Your task to perform on an android device: visit the assistant section in the google photos Image 0: 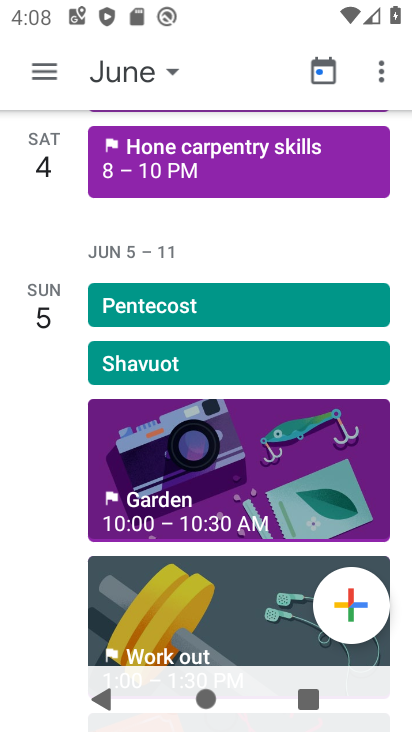
Step 0: press home button
Your task to perform on an android device: visit the assistant section in the google photos Image 1: 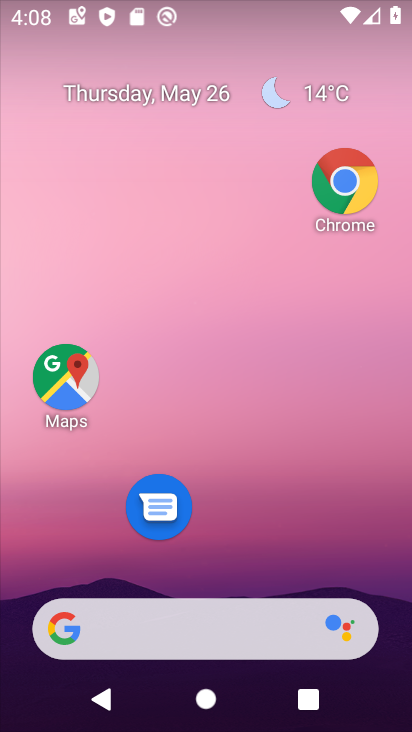
Step 1: drag from (292, 551) to (308, 59)
Your task to perform on an android device: visit the assistant section in the google photos Image 2: 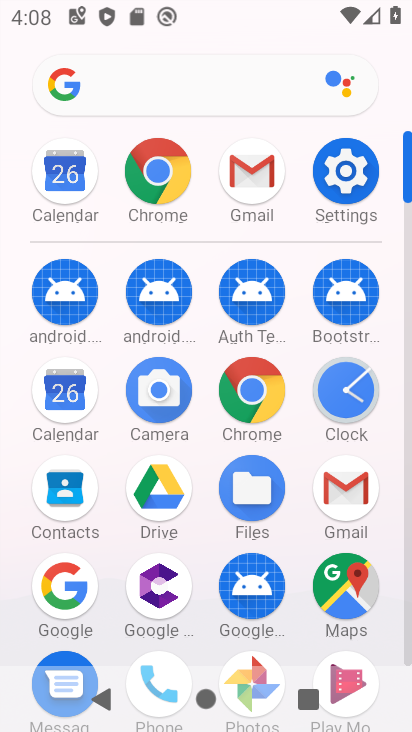
Step 2: drag from (291, 292) to (317, 53)
Your task to perform on an android device: visit the assistant section in the google photos Image 3: 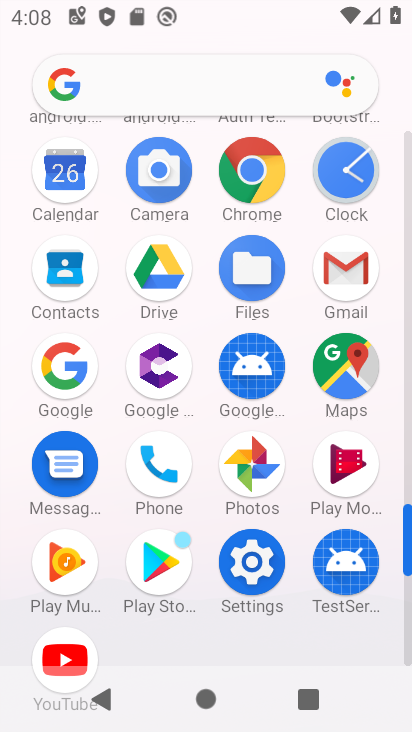
Step 3: click (247, 475)
Your task to perform on an android device: visit the assistant section in the google photos Image 4: 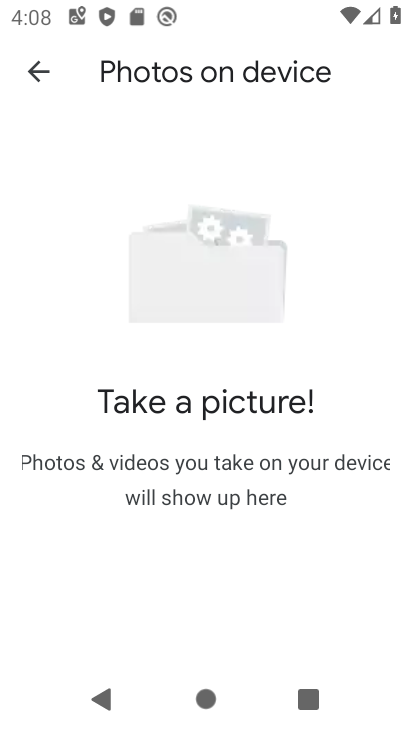
Step 4: press home button
Your task to perform on an android device: visit the assistant section in the google photos Image 5: 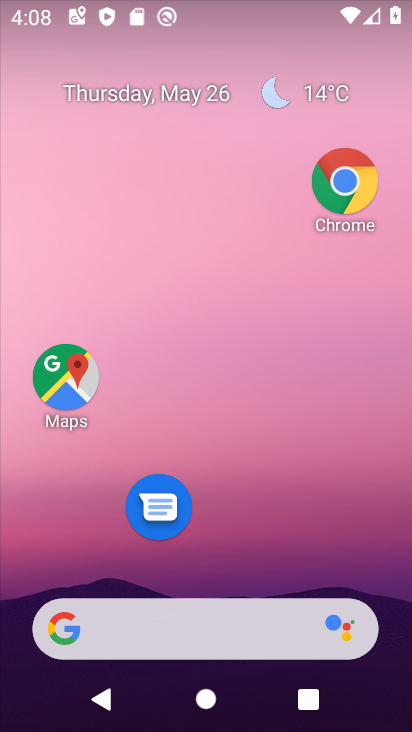
Step 5: drag from (264, 546) to (333, 63)
Your task to perform on an android device: visit the assistant section in the google photos Image 6: 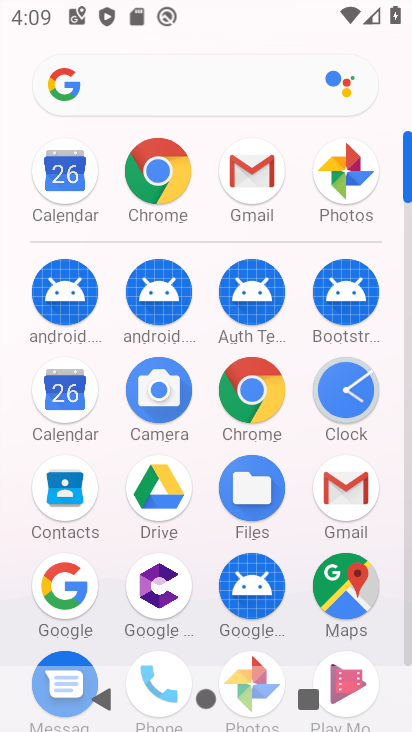
Step 6: drag from (298, 326) to (310, 76)
Your task to perform on an android device: visit the assistant section in the google photos Image 7: 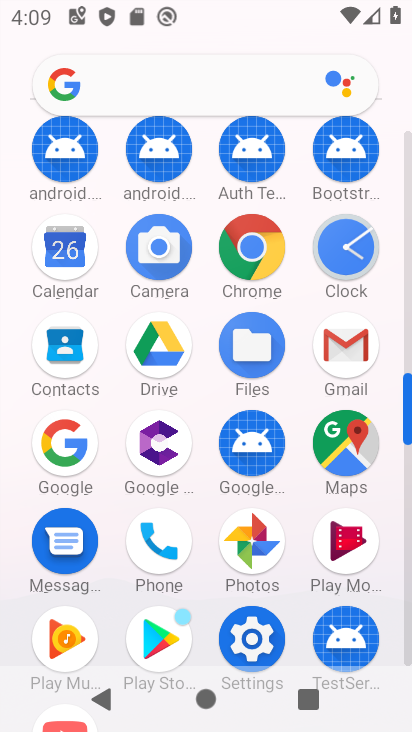
Step 7: click (246, 550)
Your task to perform on an android device: visit the assistant section in the google photos Image 8: 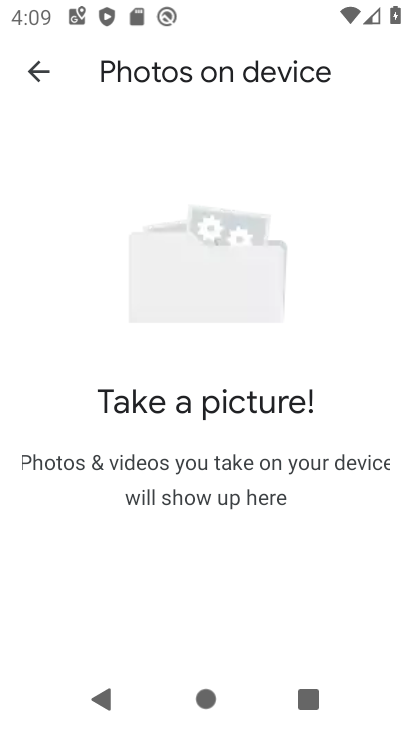
Step 8: click (31, 70)
Your task to perform on an android device: visit the assistant section in the google photos Image 9: 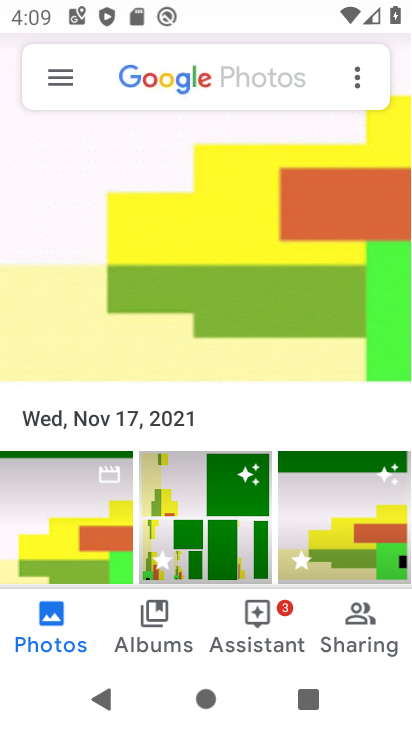
Step 9: click (255, 624)
Your task to perform on an android device: visit the assistant section in the google photos Image 10: 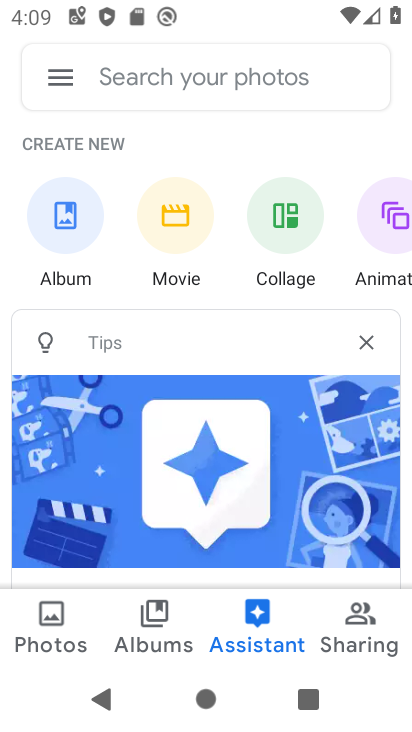
Step 10: task complete